Your task to perform on an android device: When is my next appointment? Image 0: 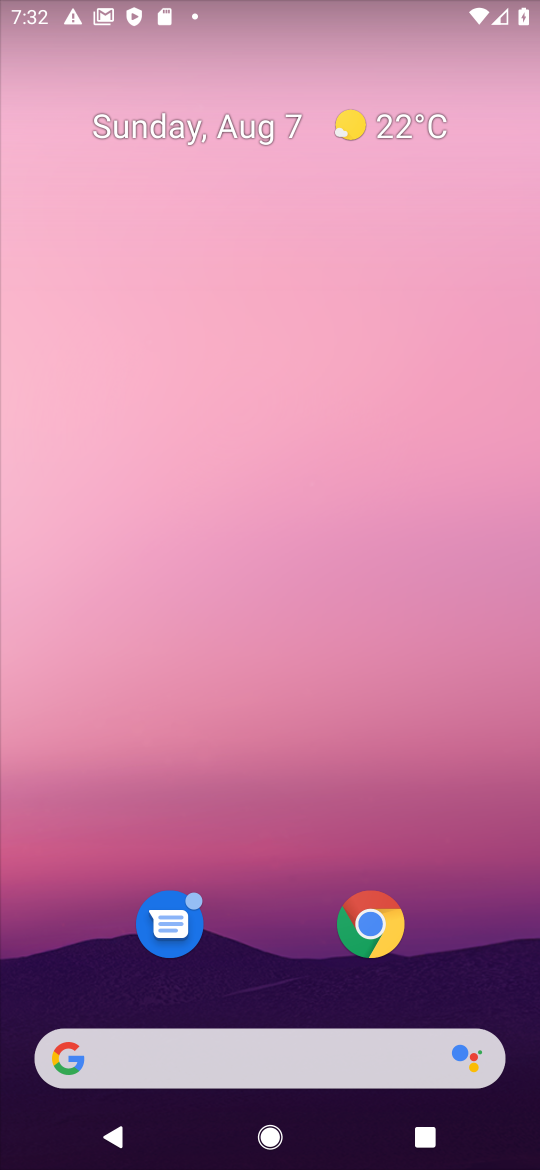
Step 0: drag from (278, 931) to (332, 69)
Your task to perform on an android device: When is my next appointment? Image 1: 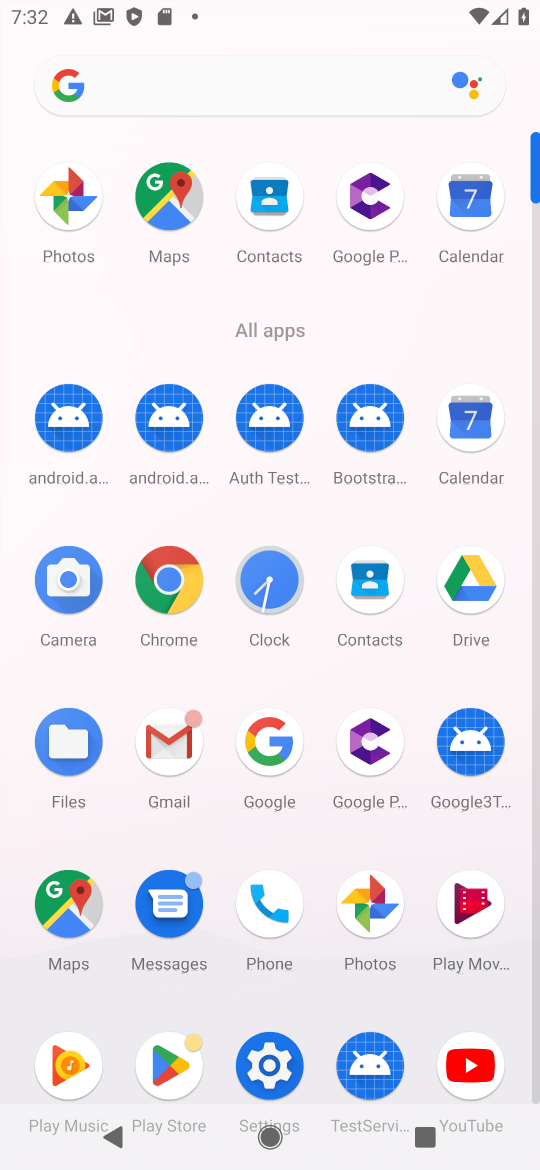
Step 1: click (467, 203)
Your task to perform on an android device: When is my next appointment? Image 2: 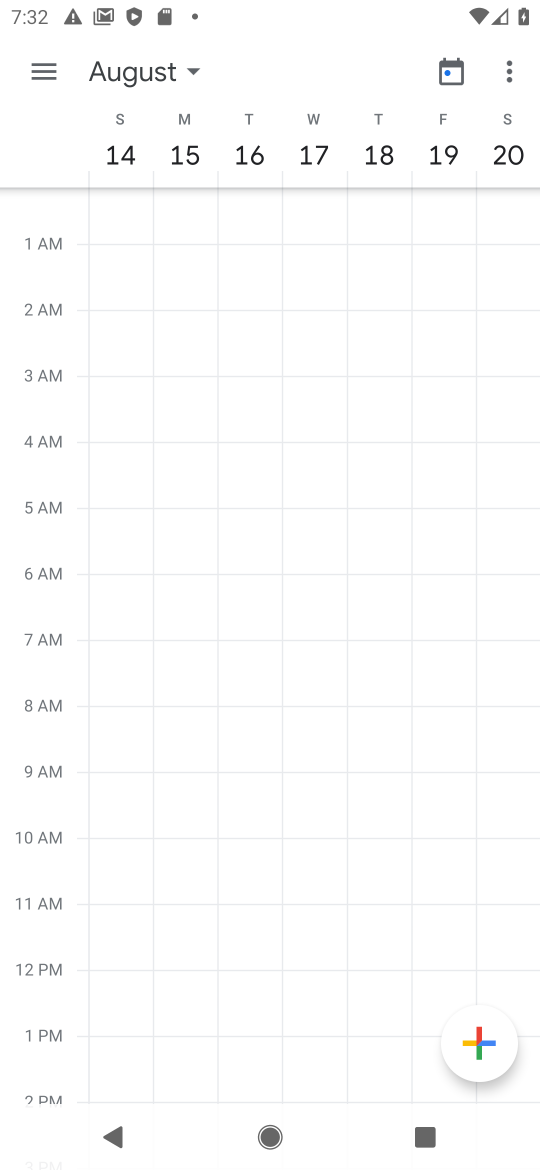
Step 2: drag from (111, 415) to (536, 390)
Your task to perform on an android device: When is my next appointment? Image 3: 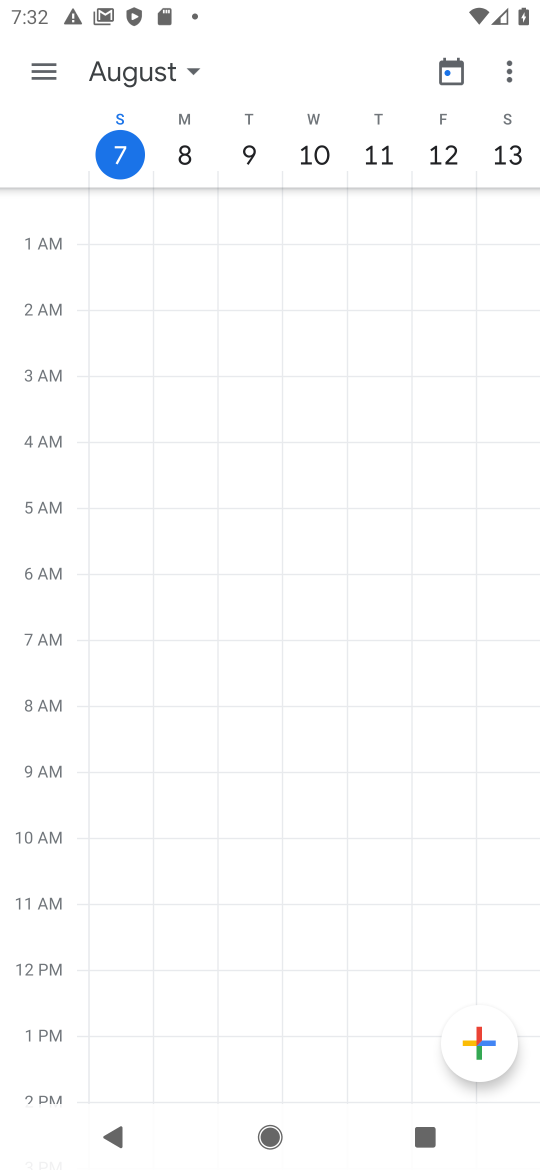
Step 3: click (114, 152)
Your task to perform on an android device: When is my next appointment? Image 4: 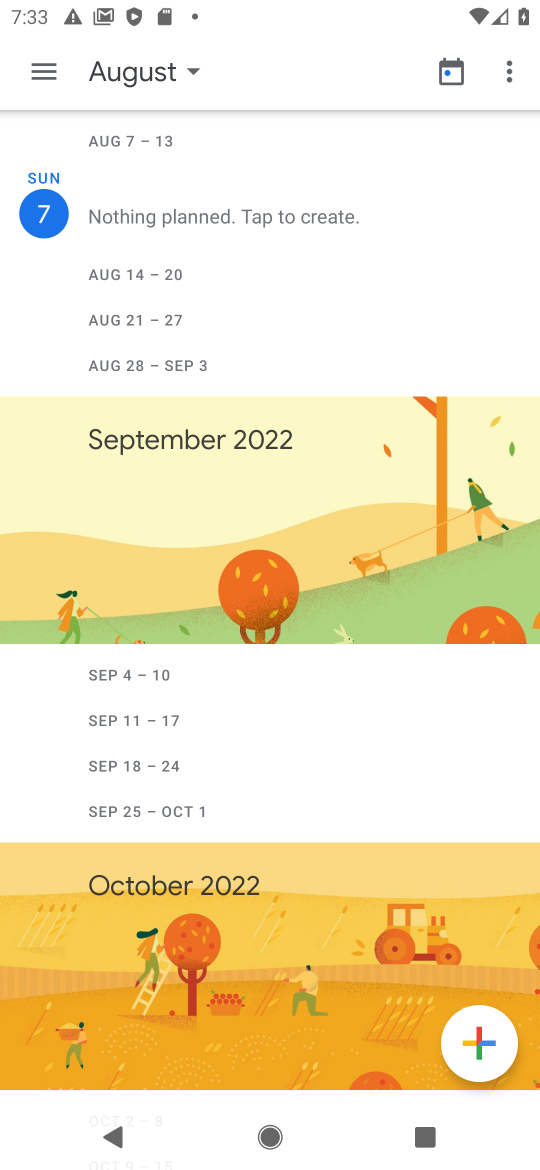
Step 4: task complete